Your task to perform on an android device: turn off sleep mode Image 0: 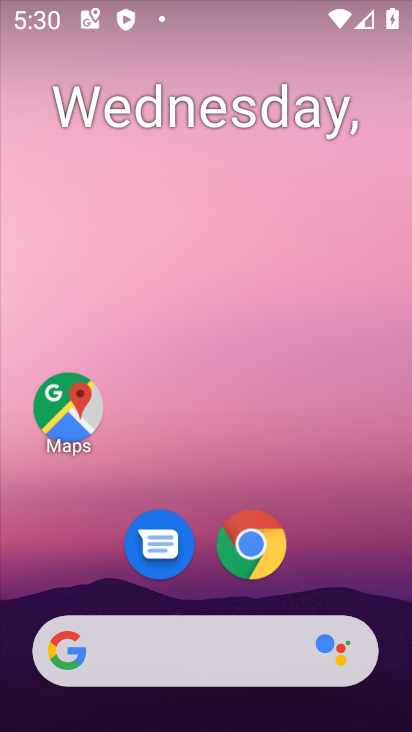
Step 0: click (284, 135)
Your task to perform on an android device: turn off sleep mode Image 1: 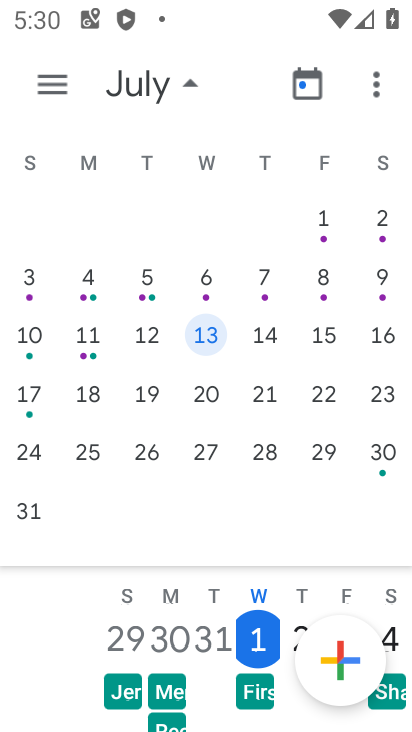
Step 1: press home button
Your task to perform on an android device: turn off sleep mode Image 2: 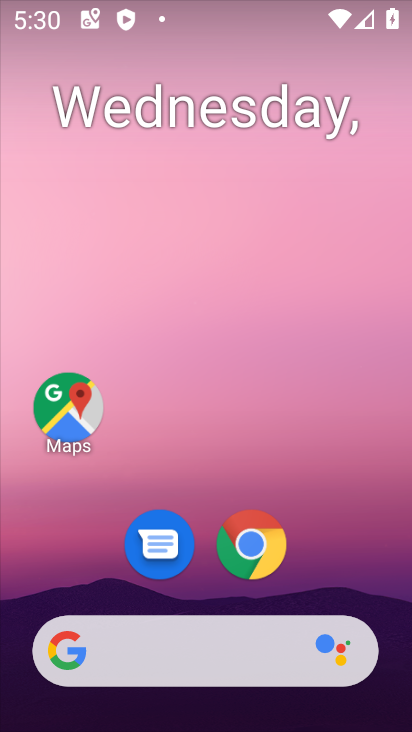
Step 2: drag from (393, 696) to (279, 65)
Your task to perform on an android device: turn off sleep mode Image 3: 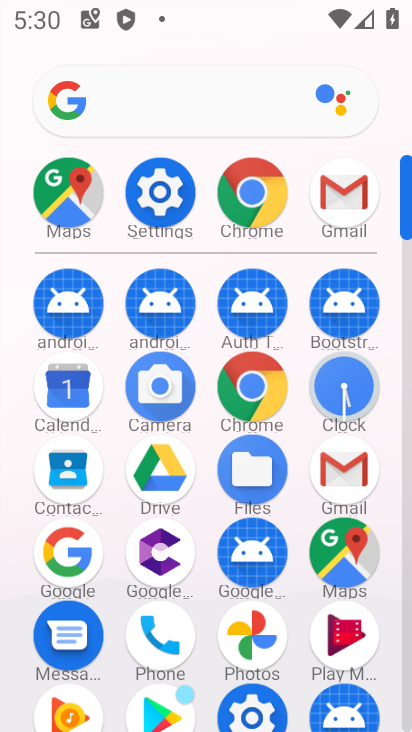
Step 3: click (164, 207)
Your task to perform on an android device: turn off sleep mode Image 4: 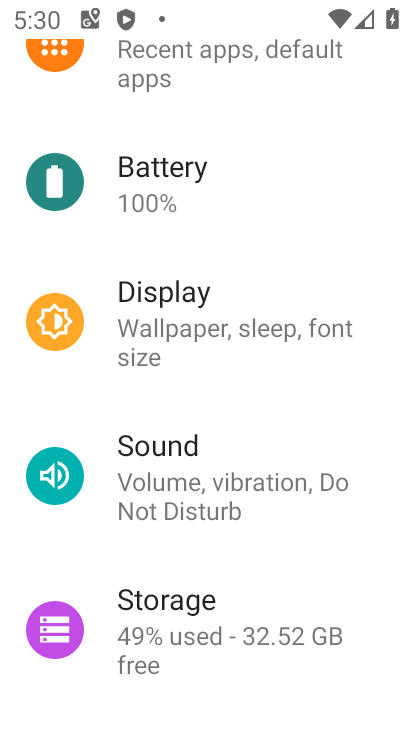
Step 4: click (181, 322)
Your task to perform on an android device: turn off sleep mode Image 5: 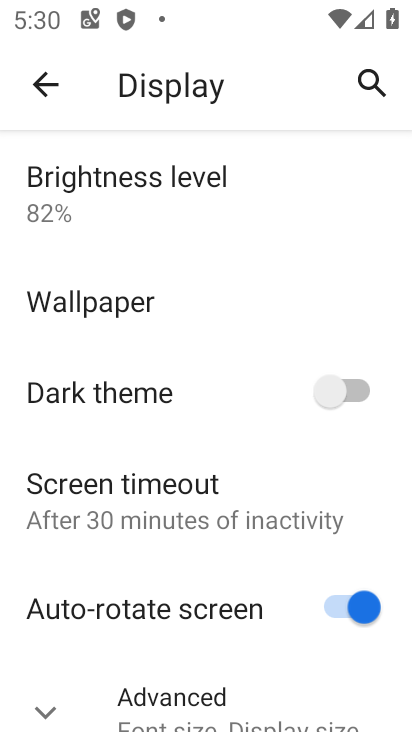
Step 5: drag from (229, 640) to (220, 275)
Your task to perform on an android device: turn off sleep mode Image 6: 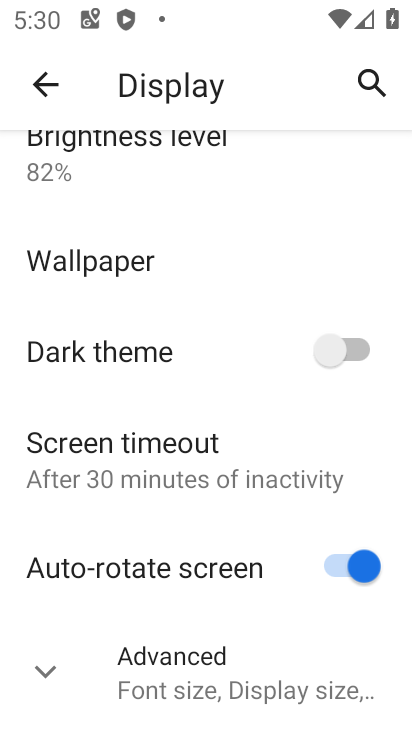
Step 6: click (54, 678)
Your task to perform on an android device: turn off sleep mode Image 7: 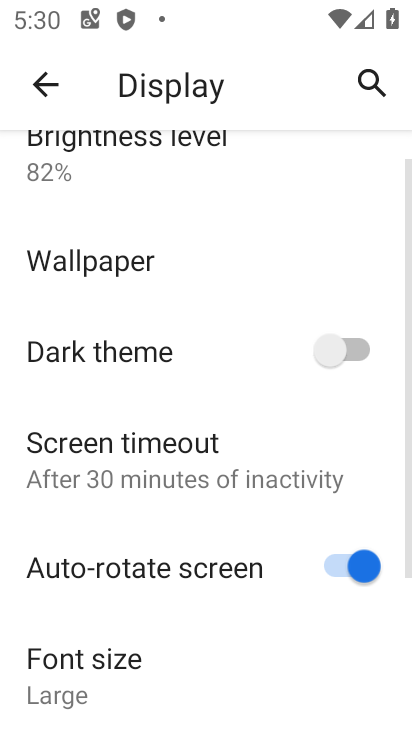
Step 7: click (81, 500)
Your task to perform on an android device: turn off sleep mode Image 8: 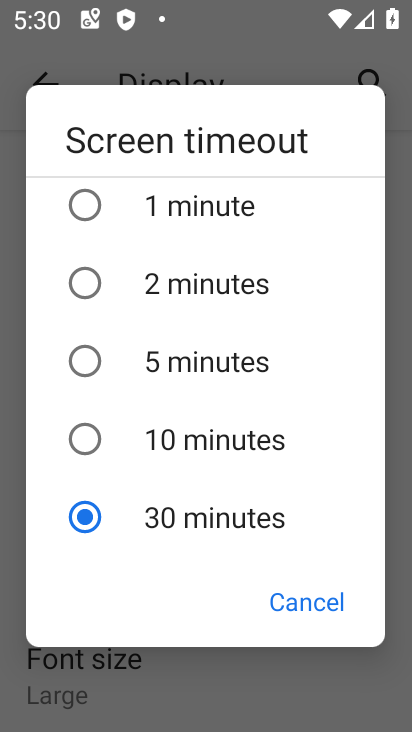
Step 8: task complete